Your task to perform on an android device: Search for top rated burger restaurants on Maps Image 0: 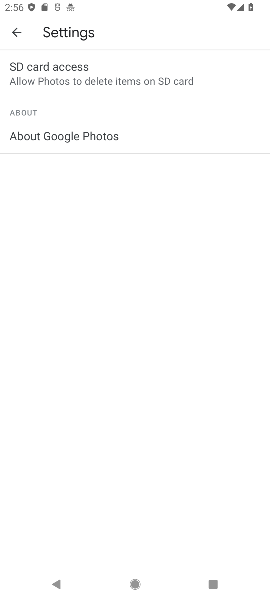
Step 0: press home button
Your task to perform on an android device: Search for top rated burger restaurants on Maps Image 1: 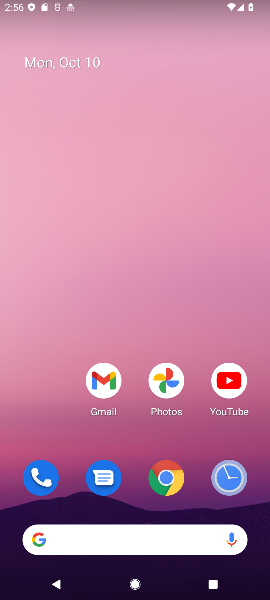
Step 1: drag from (132, 506) to (227, 2)
Your task to perform on an android device: Search for top rated burger restaurants on Maps Image 2: 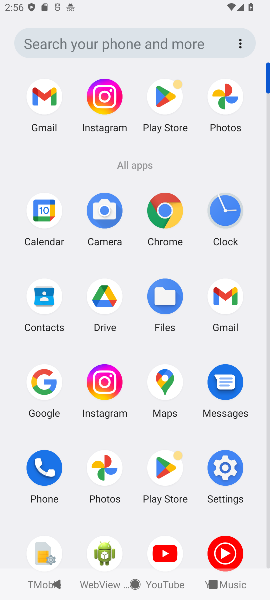
Step 2: click (161, 371)
Your task to perform on an android device: Search for top rated burger restaurants on Maps Image 3: 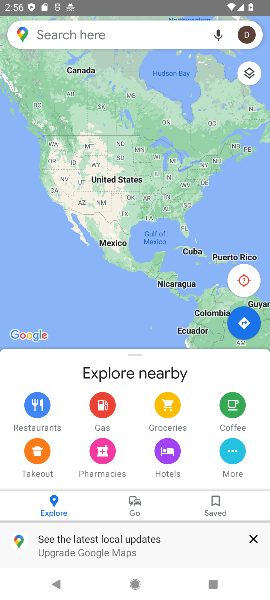
Step 3: click (71, 38)
Your task to perform on an android device: Search for top rated burger restaurants on Maps Image 4: 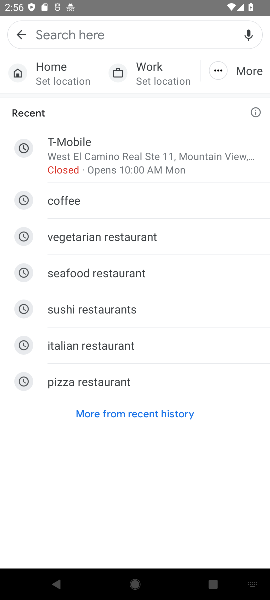
Step 4: type " top rated burger restaurants on Maps"
Your task to perform on an android device: Search for top rated burger restaurants on Maps Image 5: 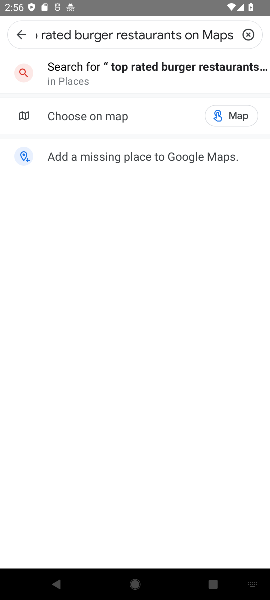
Step 5: click (204, 68)
Your task to perform on an android device: Search for top rated burger restaurants on Maps Image 6: 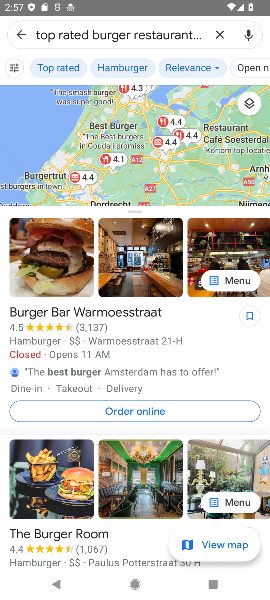
Step 6: task complete